Your task to perform on an android device: open app "Mercado Libre" (install if not already installed) and enter user name: "tolerating@yahoo.com" and password: "Kepler" Image 0: 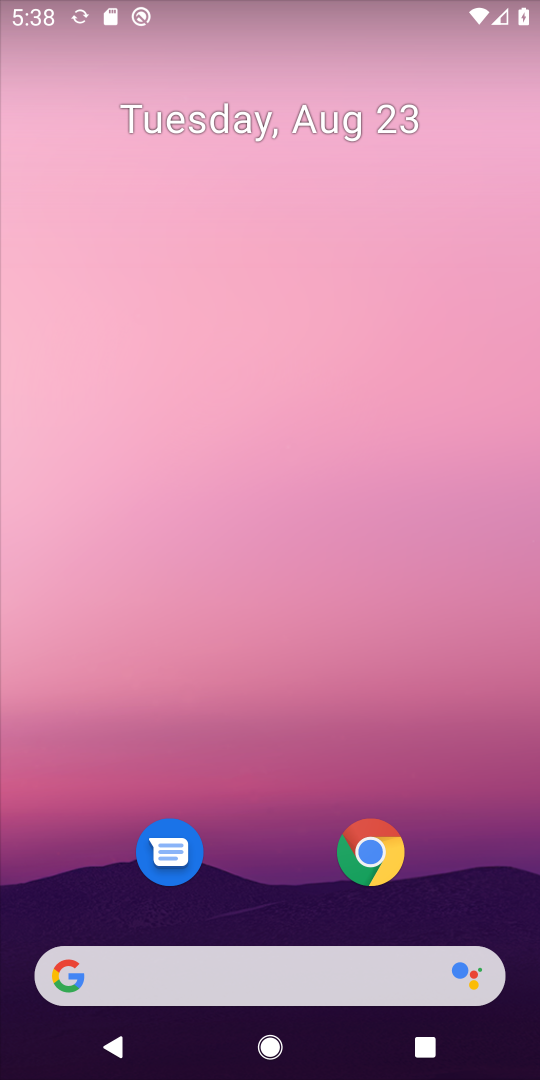
Step 0: drag from (314, 970) to (283, 43)
Your task to perform on an android device: open app "Mercado Libre" (install if not already installed) and enter user name: "tolerating@yahoo.com" and password: "Kepler" Image 1: 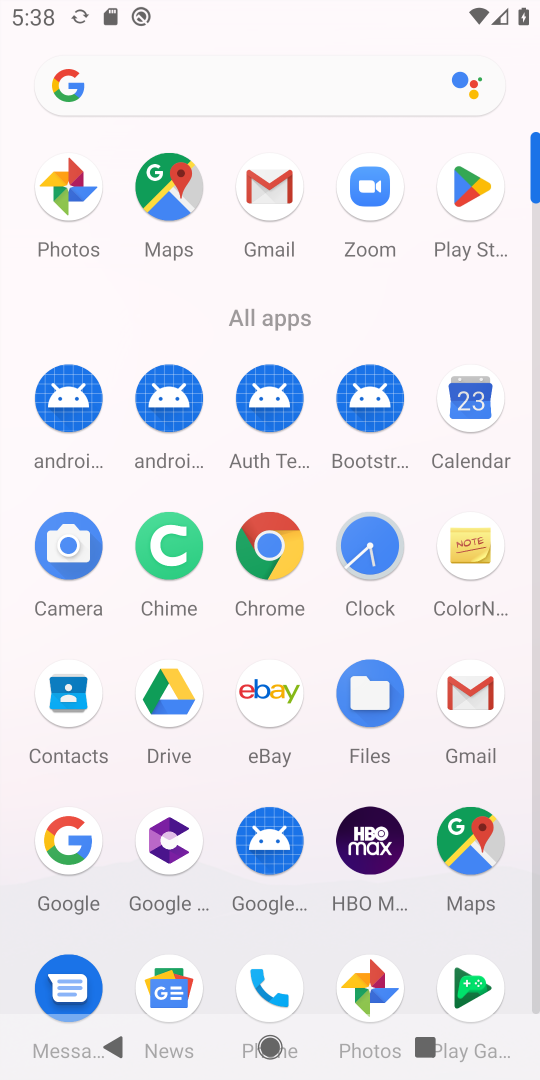
Step 1: click (471, 188)
Your task to perform on an android device: open app "Mercado Libre" (install if not already installed) and enter user name: "tolerating@yahoo.com" and password: "Kepler" Image 2: 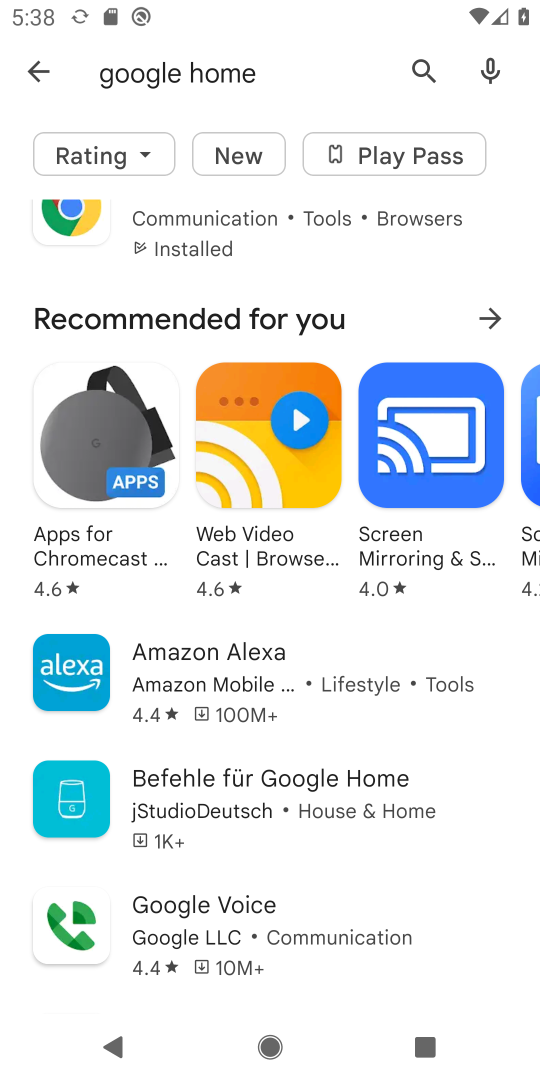
Step 2: press back button
Your task to perform on an android device: open app "Mercado Libre" (install if not already installed) and enter user name: "tolerating@yahoo.com" and password: "Kepler" Image 3: 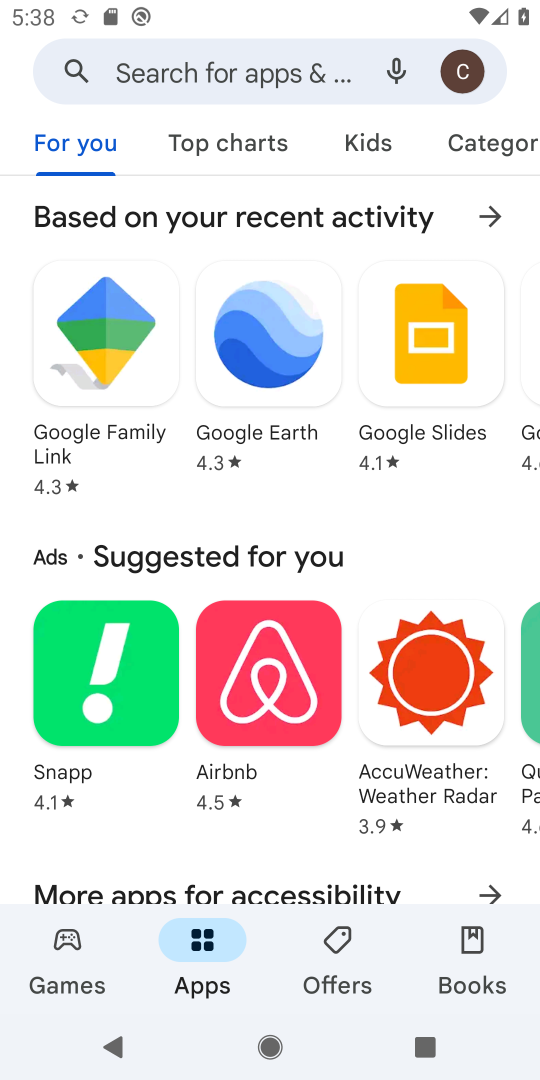
Step 3: click (290, 84)
Your task to perform on an android device: open app "Mercado Libre" (install if not already installed) and enter user name: "tolerating@yahoo.com" and password: "Kepler" Image 4: 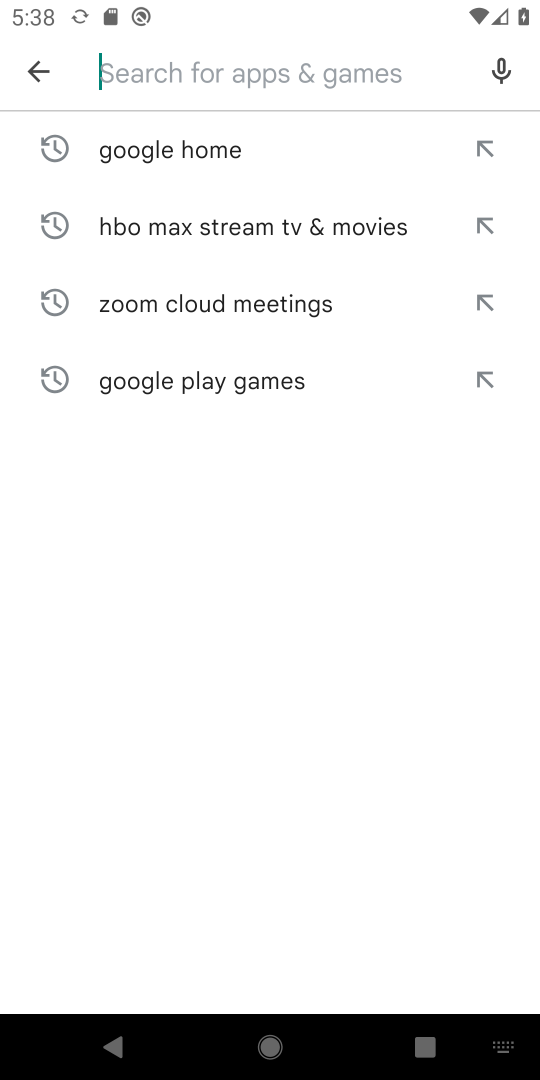
Step 4: type "Mercado Libre"
Your task to perform on an android device: open app "Mercado Libre" (install if not already installed) and enter user name: "tolerating@yahoo.com" and password: "Kepler" Image 5: 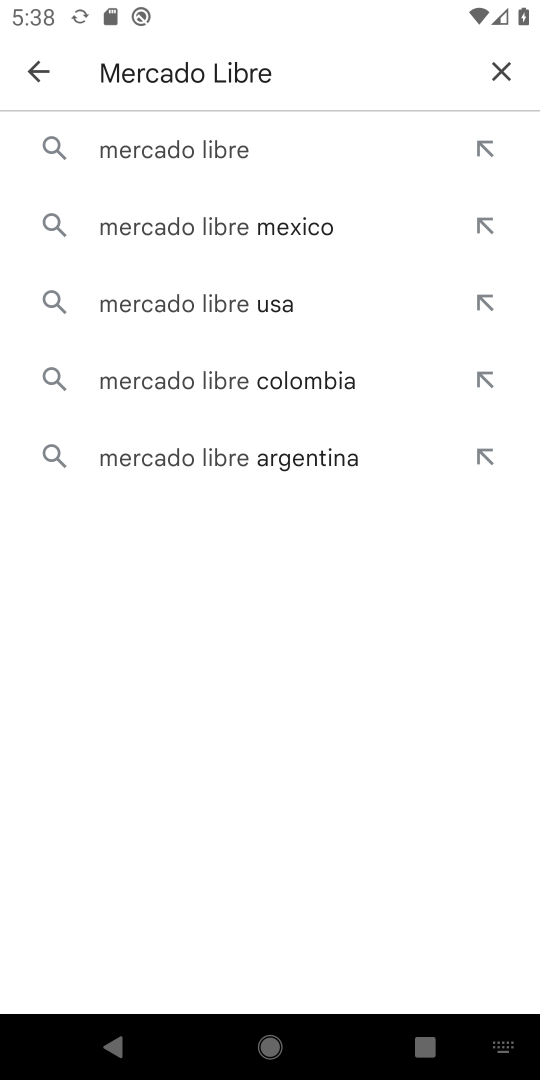
Step 5: click (220, 150)
Your task to perform on an android device: open app "Mercado Libre" (install if not already installed) and enter user name: "tolerating@yahoo.com" and password: "Kepler" Image 6: 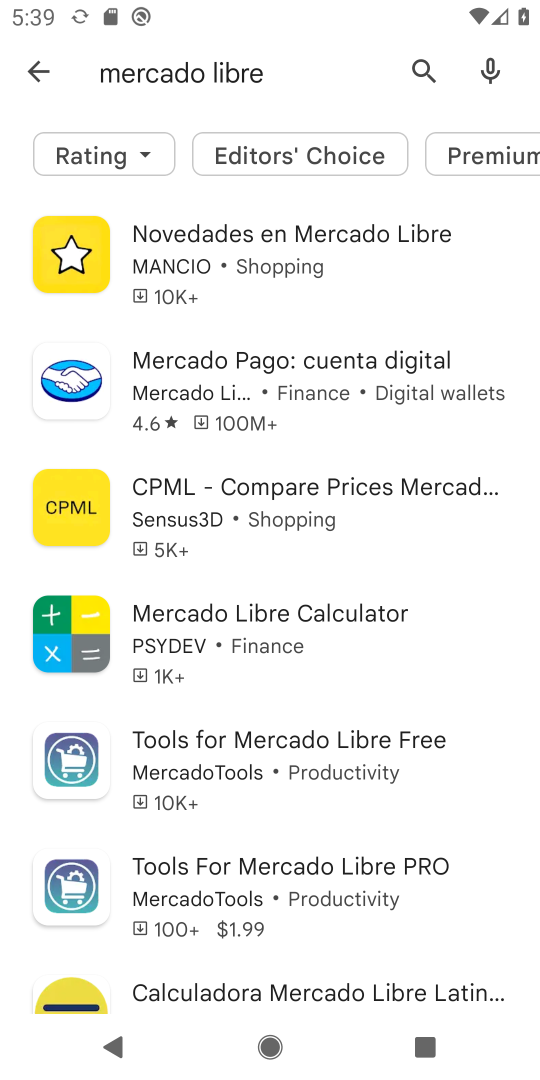
Step 6: drag from (508, 807) to (498, 553)
Your task to perform on an android device: open app "Mercado Libre" (install if not already installed) and enter user name: "tolerating@yahoo.com" and password: "Kepler" Image 7: 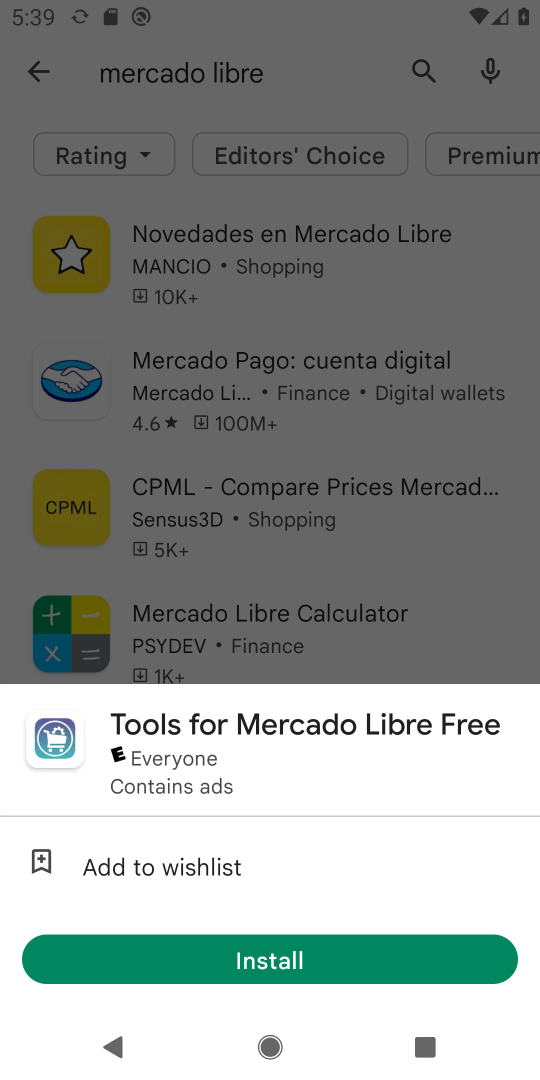
Step 7: click (487, 600)
Your task to perform on an android device: open app "Mercado Libre" (install if not already installed) and enter user name: "tolerating@yahoo.com" and password: "Kepler" Image 8: 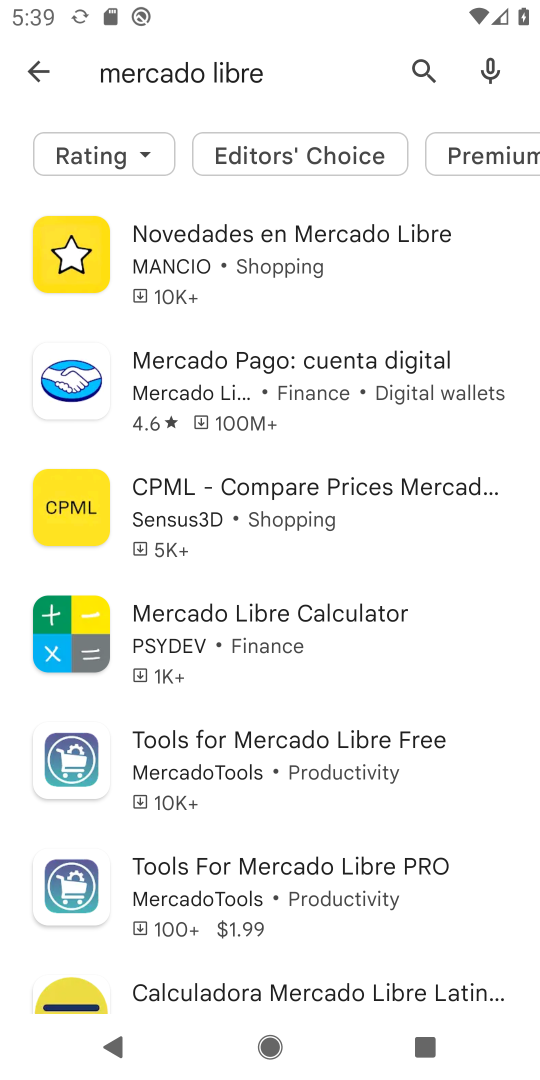
Step 8: task complete